Your task to perform on an android device: Turn on the flashlight Image 0: 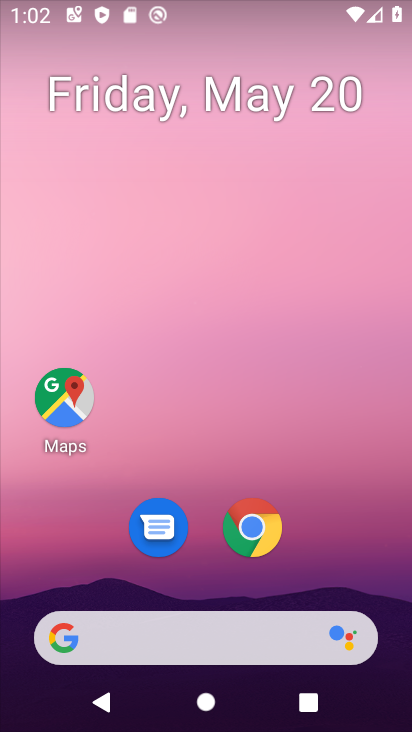
Step 0: drag from (212, 5) to (206, 439)
Your task to perform on an android device: Turn on the flashlight Image 1: 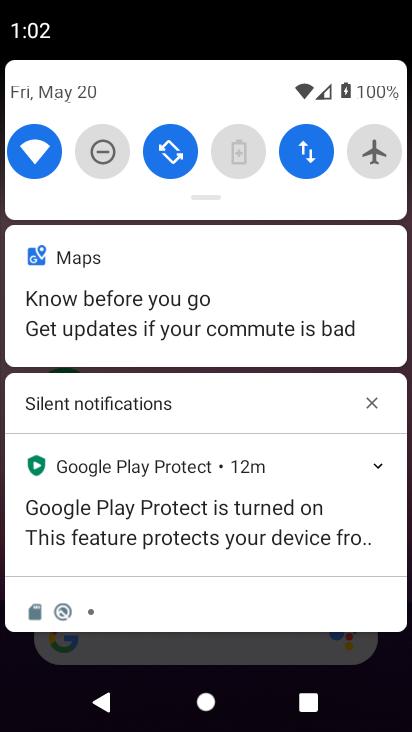
Step 1: task complete